Your task to perform on an android device: Search for "logitech g910" on bestbuy, select the first entry, and add it to the cart. Image 0: 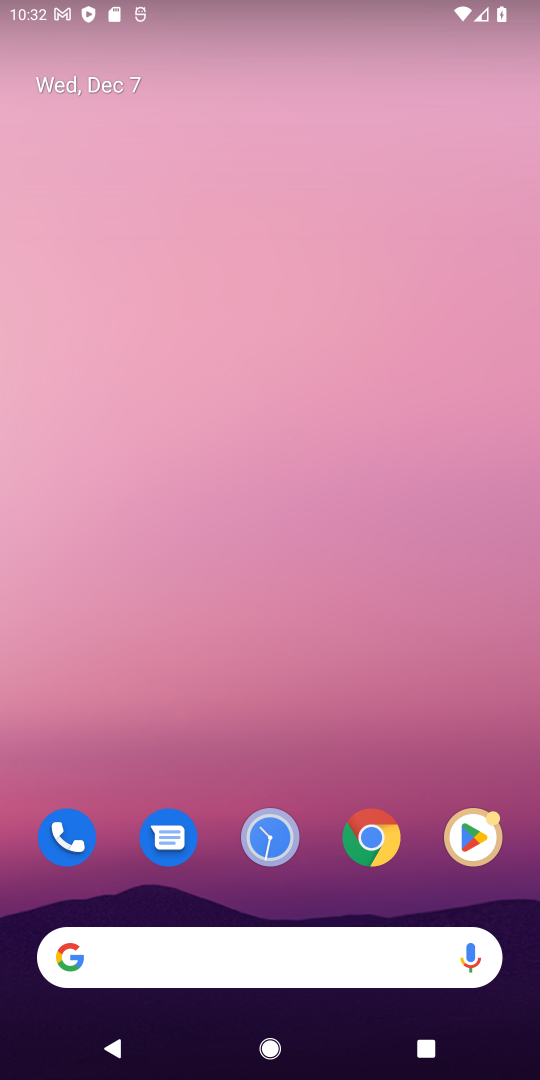
Step 0: click (384, 844)
Your task to perform on an android device: Search for "logitech g910" on bestbuy, select the first entry, and add it to the cart. Image 1: 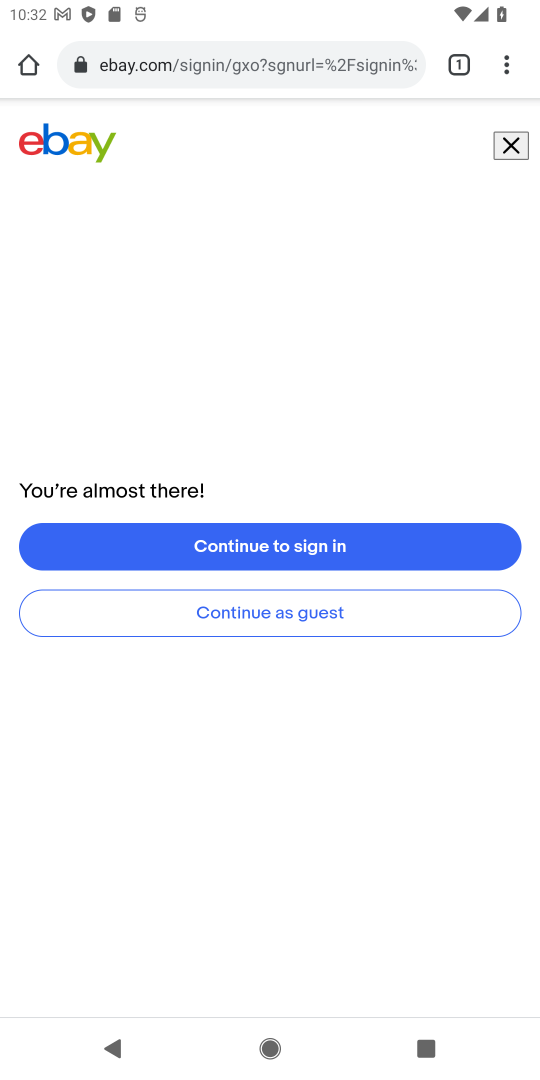
Step 1: press home button
Your task to perform on an android device: Search for "logitech g910" on bestbuy, select the first entry, and add it to the cart. Image 2: 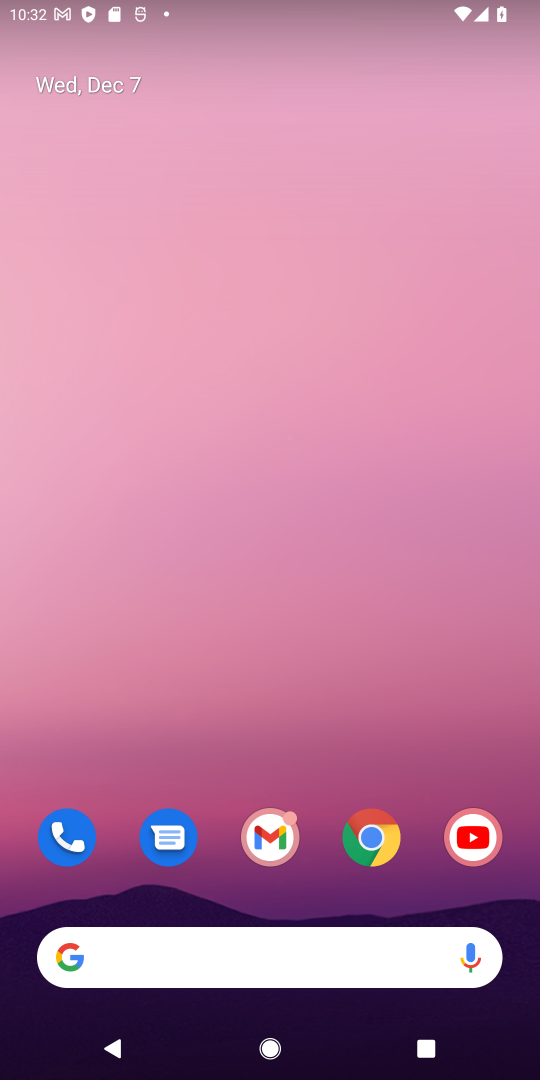
Step 2: click (378, 846)
Your task to perform on an android device: Search for "logitech g910" on bestbuy, select the first entry, and add it to the cart. Image 3: 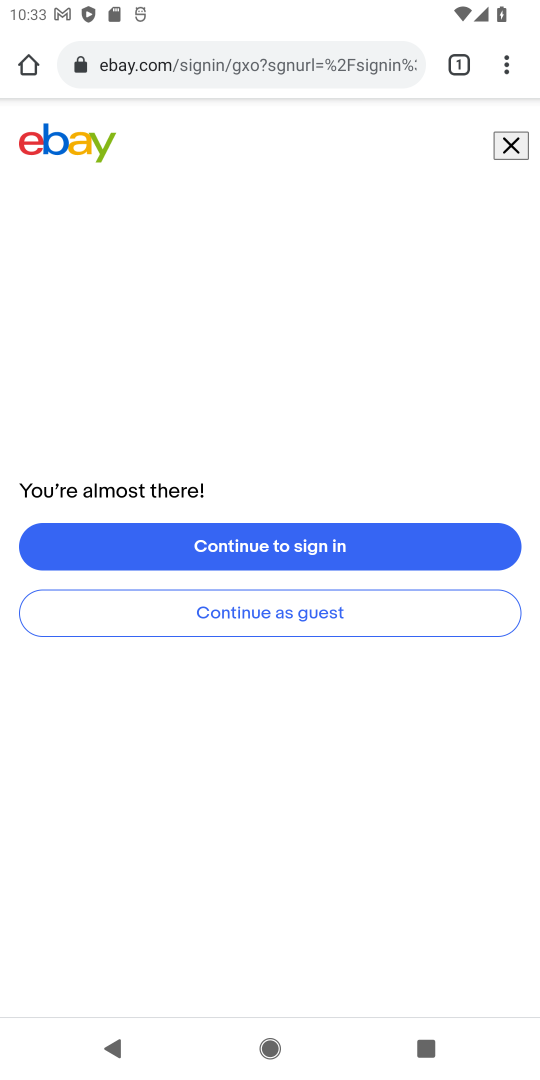
Step 3: click (333, 64)
Your task to perform on an android device: Search for "logitech g910" on bestbuy, select the first entry, and add it to the cart. Image 4: 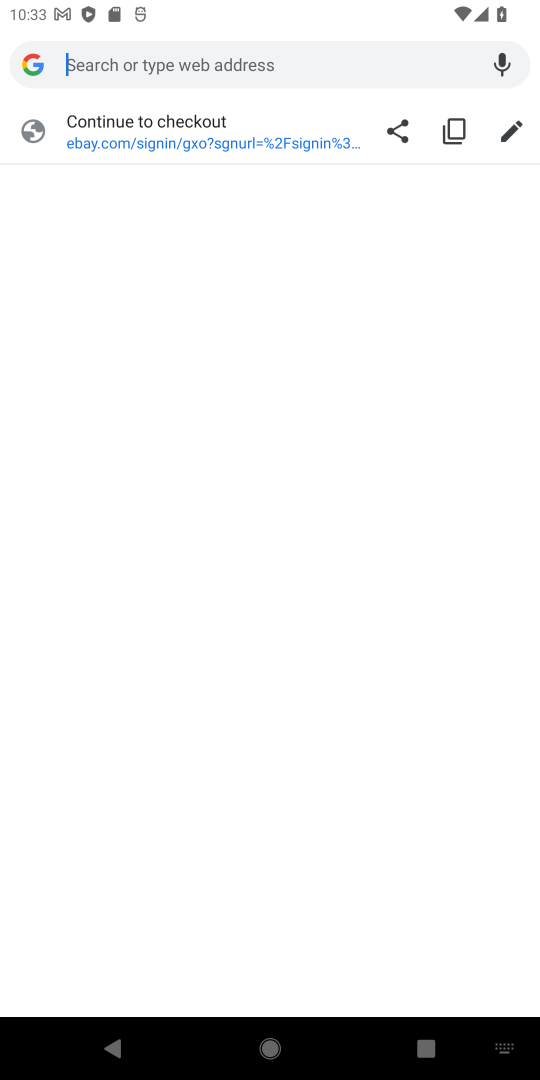
Step 4: type "bestbuy"
Your task to perform on an android device: Search for "logitech g910" on bestbuy, select the first entry, and add it to the cart. Image 5: 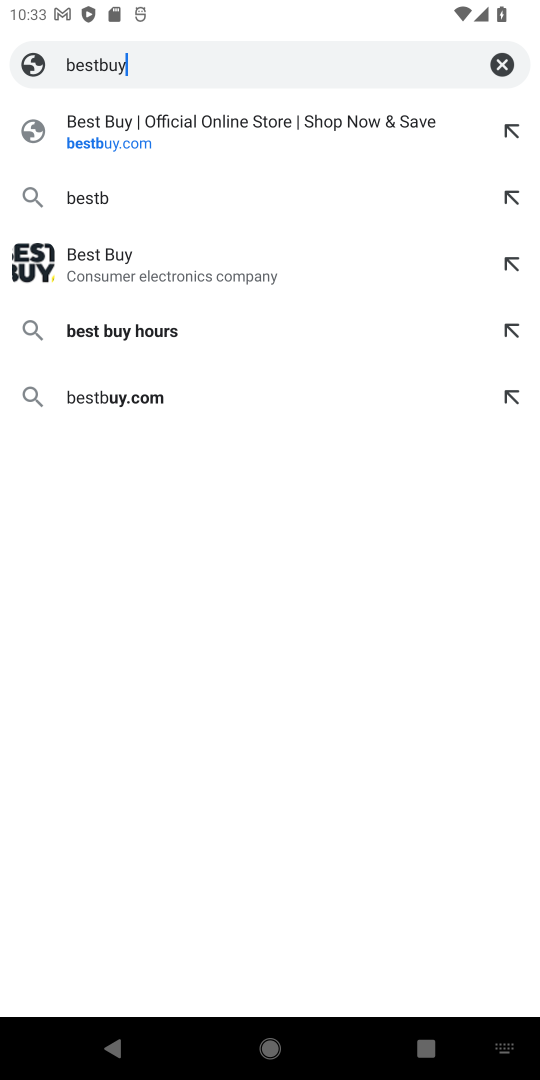
Step 5: press enter
Your task to perform on an android device: Search for "logitech g910" on bestbuy, select the first entry, and add it to the cart. Image 6: 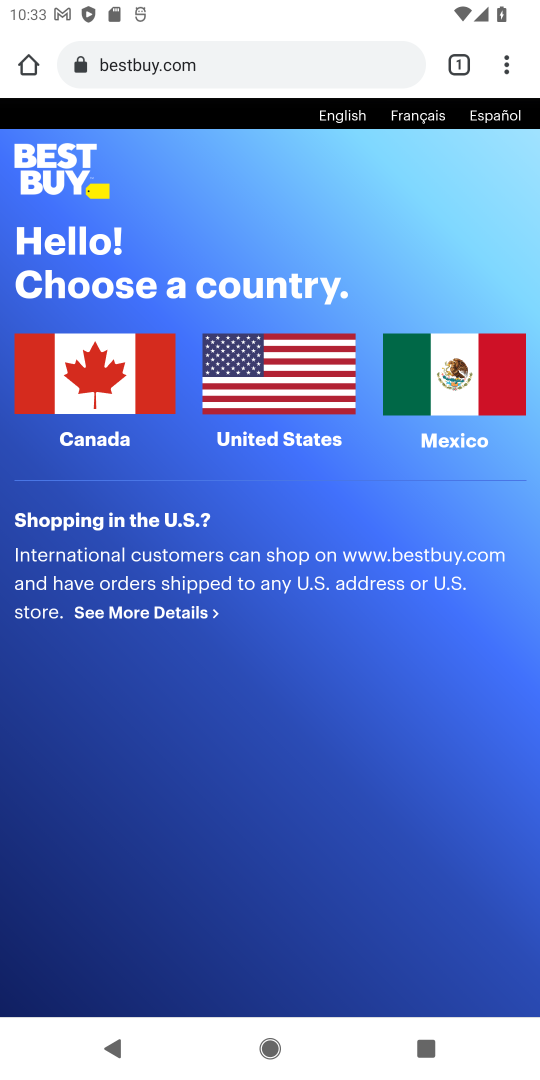
Step 6: click (280, 391)
Your task to perform on an android device: Search for "logitech g910" on bestbuy, select the first entry, and add it to the cart. Image 7: 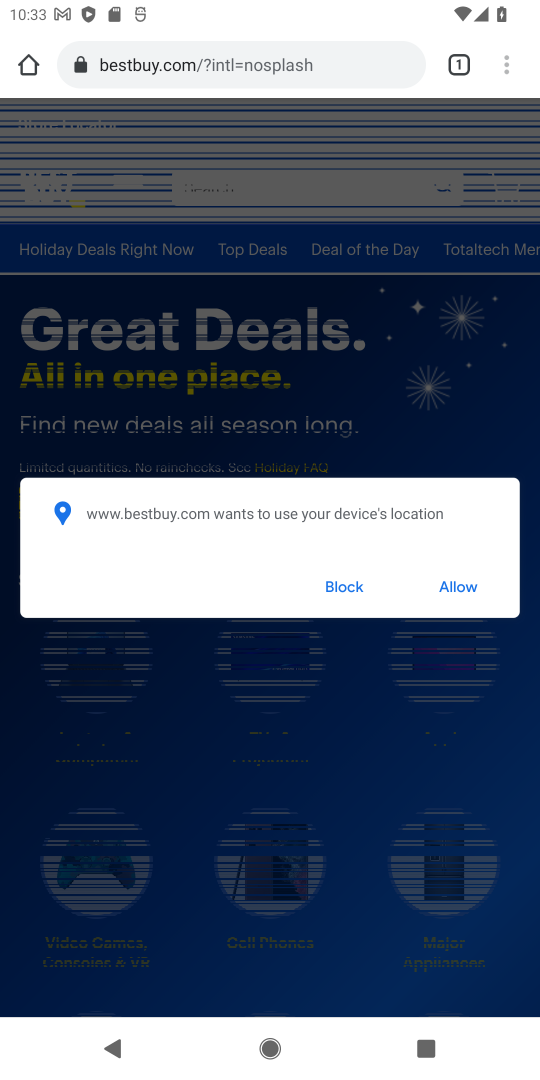
Step 7: click (337, 586)
Your task to perform on an android device: Search for "logitech g910" on bestbuy, select the first entry, and add it to the cart. Image 8: 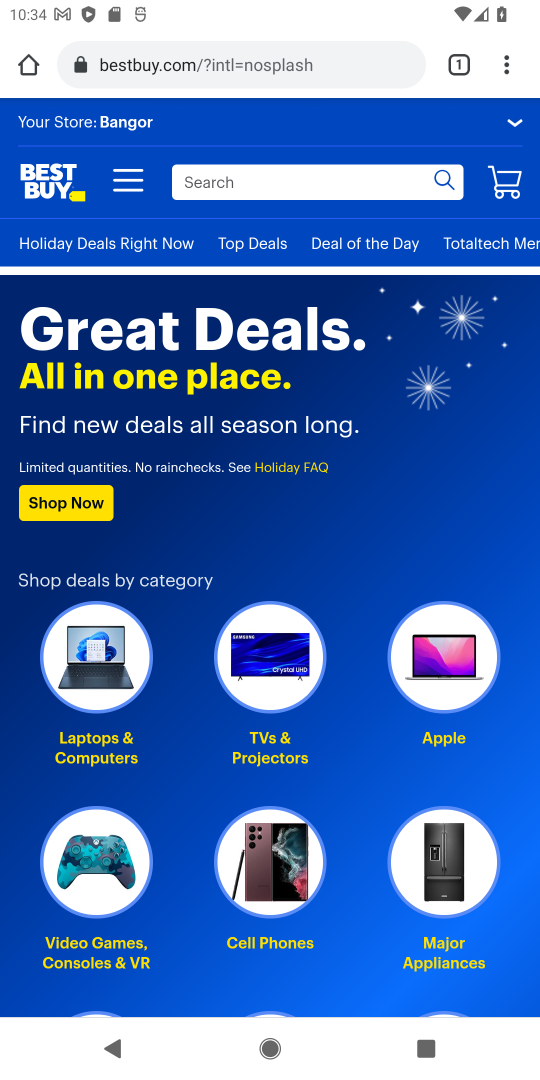
Step 8: click (331, 179)
Your task to perform on an android device: Search for "logitech g910" on bestbuy, select the first entry, and add it to the cart. Image 9: 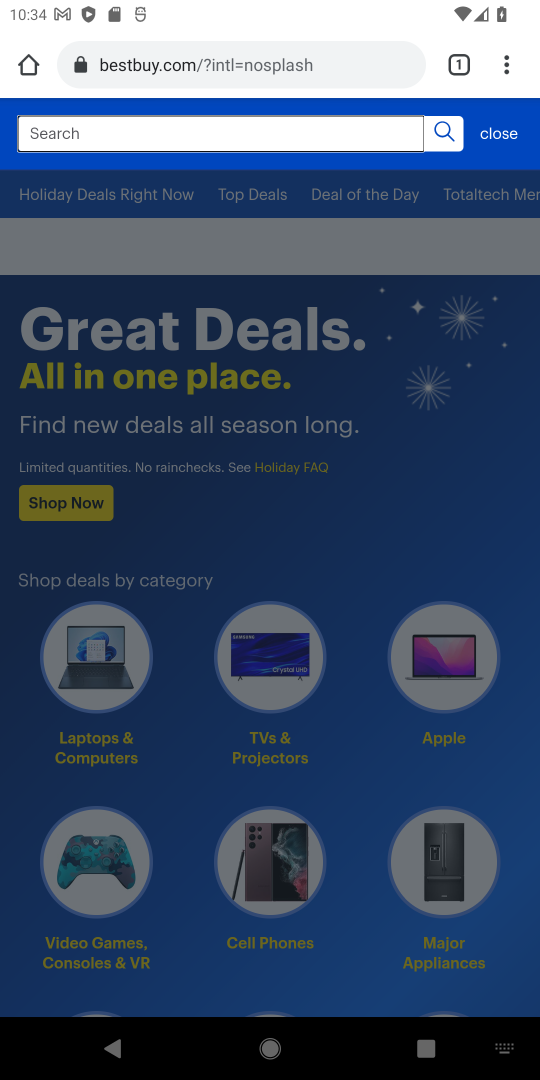
Step 9: type "logitech g910"
Your task to perform on an android device: Search for "logitech g910" on bestbuy, select the first entry, and add it to the cart. Image 10: 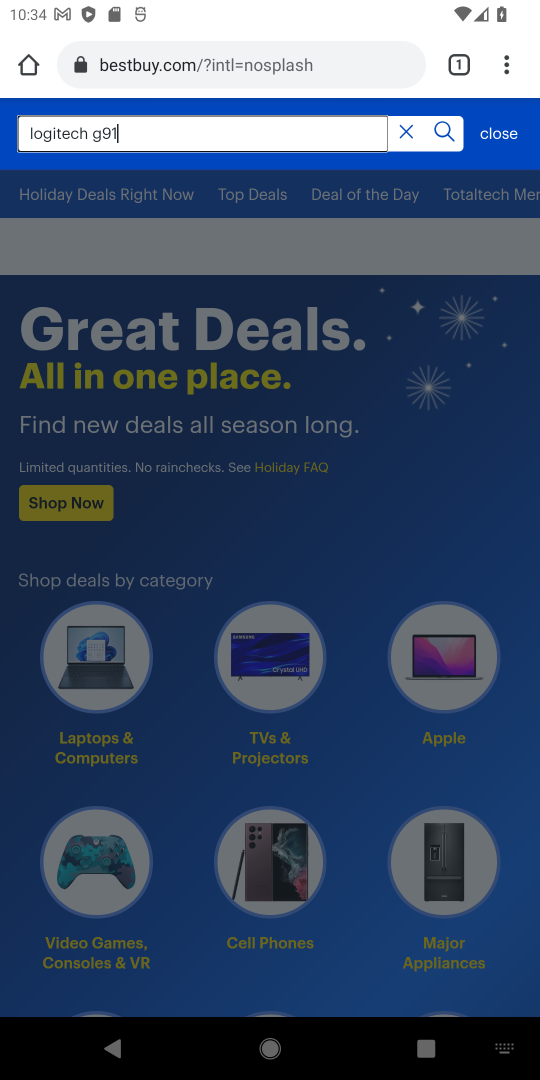
Step 10: press enter
Your task to perform on an android device: Search for "logitech g910" on bestbuy, select the first entry, and add it to the cart. Image 11: 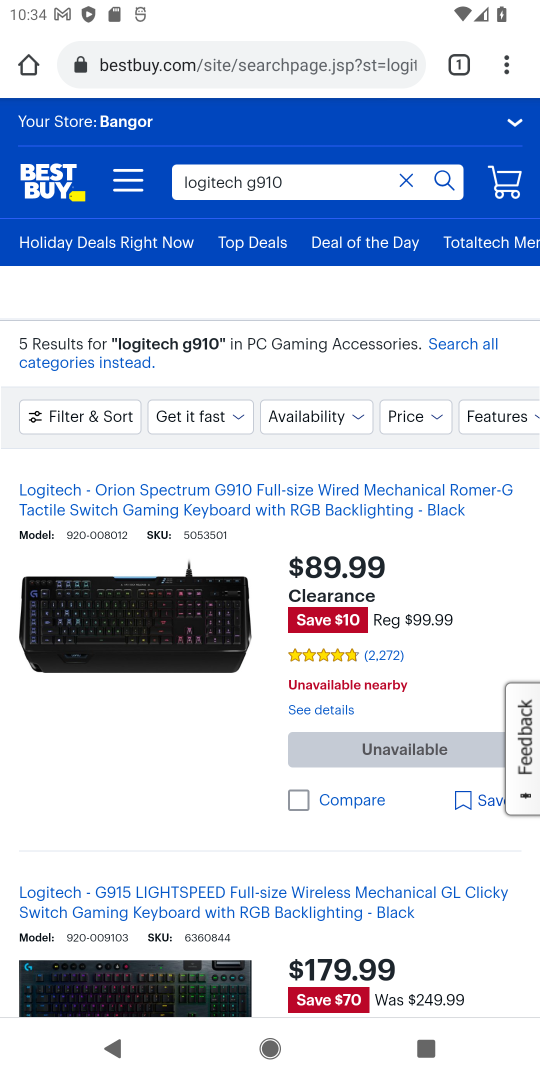
Step 11: click (221, 641)
Your task to perform on an android device: Search for "logitech g910" on bestbuy, select the first entry, and add it to the cart. Image 12: 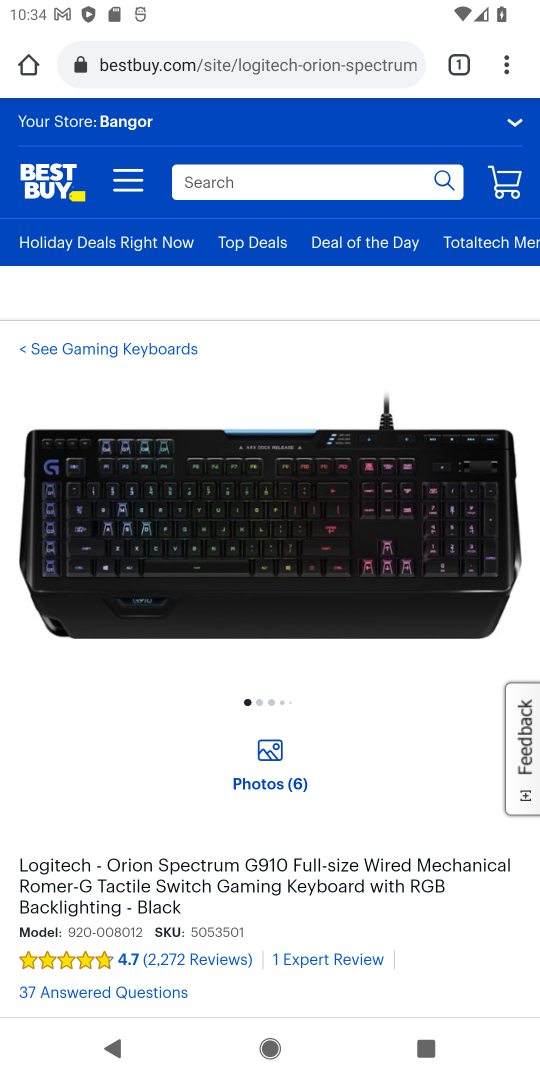
Step 12: task complete